Your task to perform on an android device: Open the stopwatch Image 0: 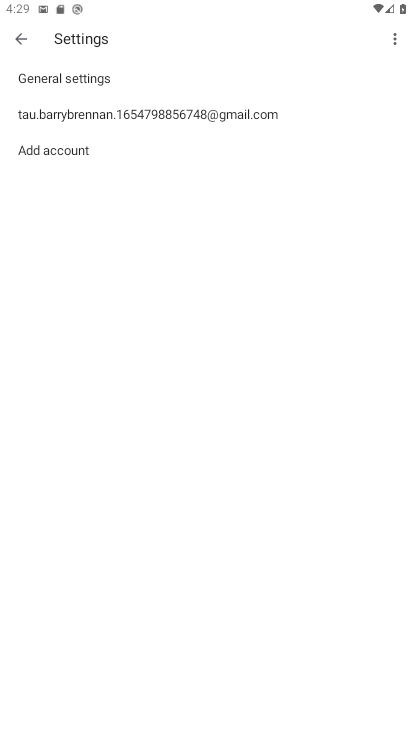
Step 0: press home button
Your task to perform on an android device: Open the stopwatch Image 1: 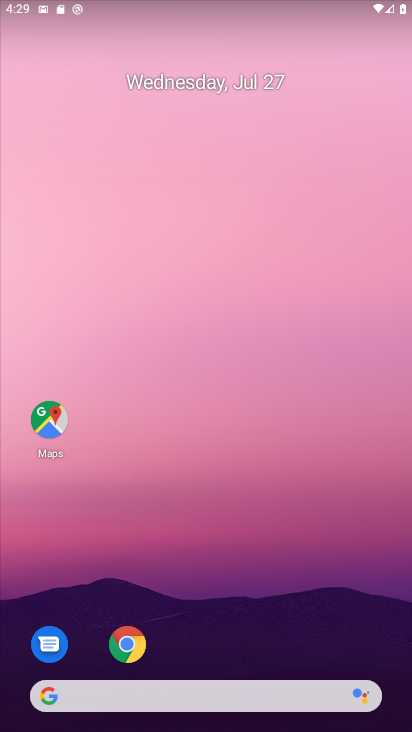
Step 1: drag from (261, 602) to (253, 111)
Your task to perform on an android device: Open the stopwatch Image 2: 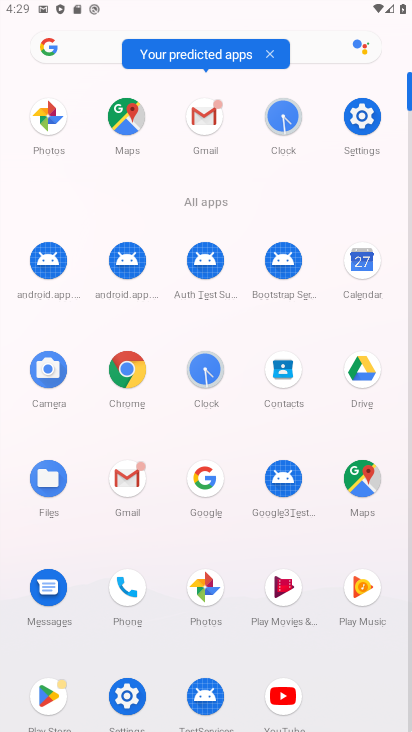
Step 2: click (284, 127)
Your task to perform on an android device: Open the stopwatch Image 3: 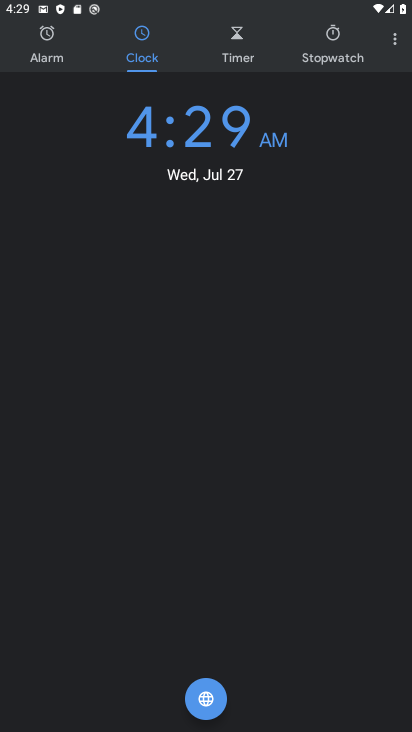
Step 3: click (320, 53)
Your task to perform on an android device: Open the stopwatch Image 4: 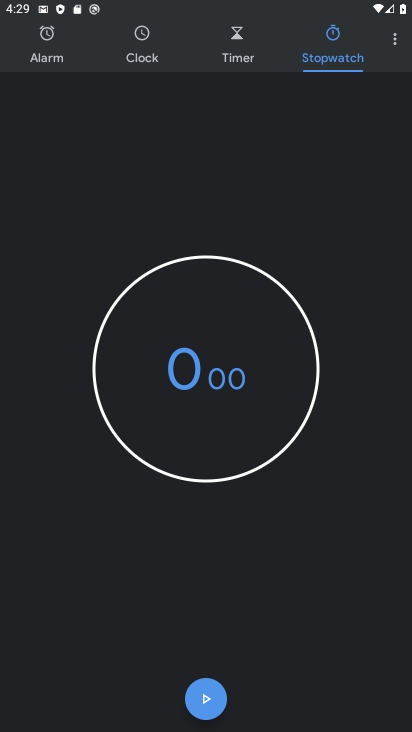
Step 4: task complete